Your task to perform on an android device: Open Google Maps Image 0: 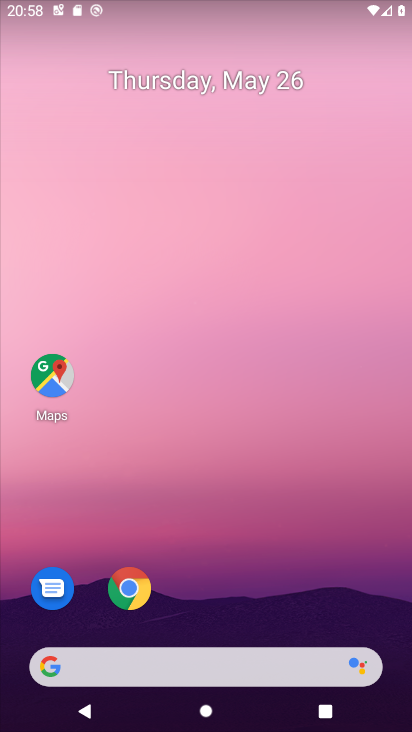
Step 0: drag from (218, 592) to (217, 6)
Your task to perform on an android device: Open Google Maps Image 1: 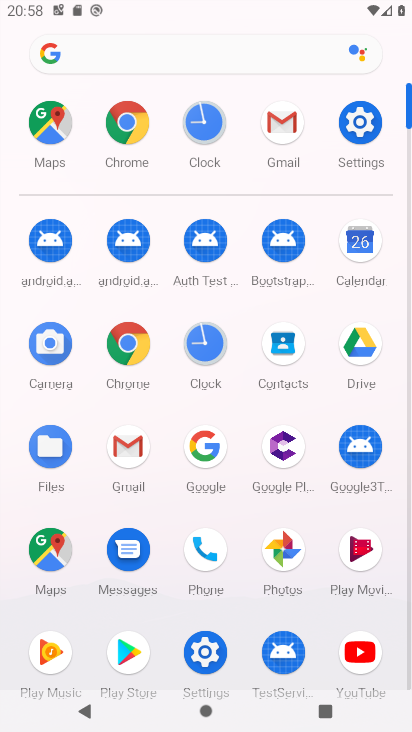
Step 1: click (65, 159)
Your task to perform on an android device: Open Google Maps Image 2: 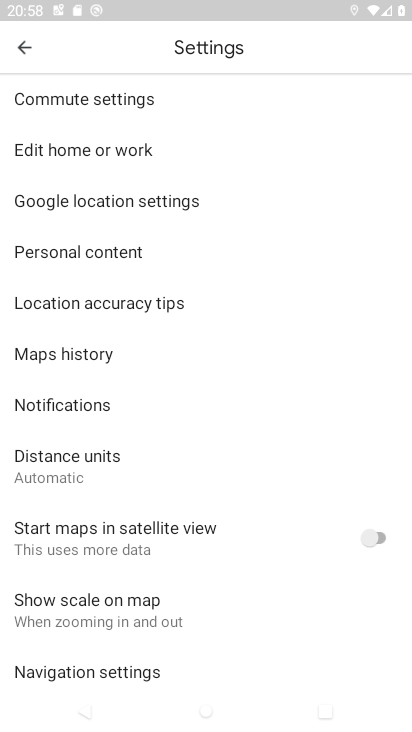
Step 2: click (30, 44)
Your task to perform on an android device: Open Google Maps Image 3: 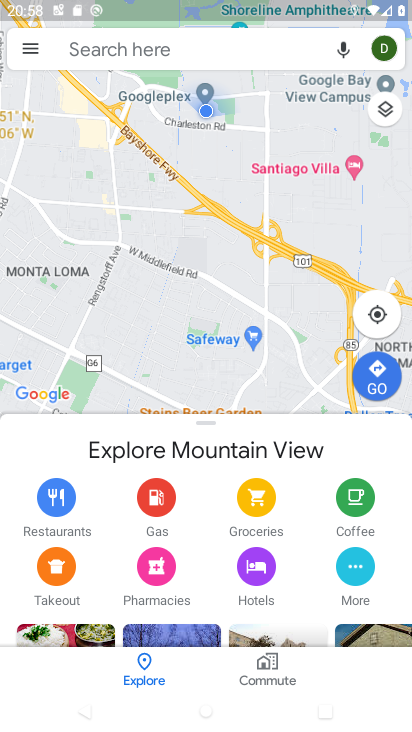
Step 3: click (30, 44)
Your task to perform on an android device: Open Google Maps Image 4: 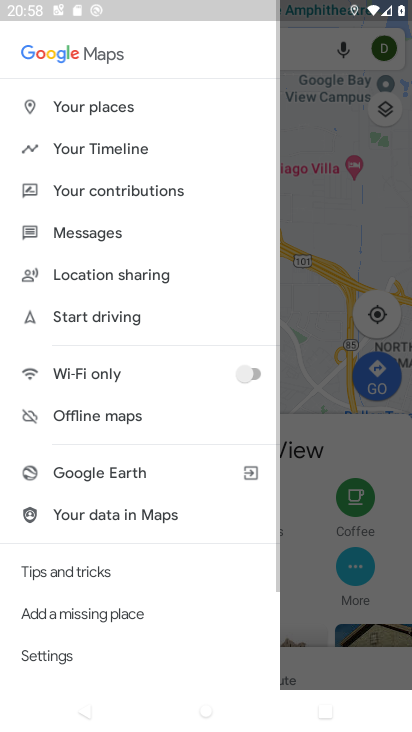
Step 4: click (319, 63)
Your task to perform on an android device: Open Google Maps Image 5: 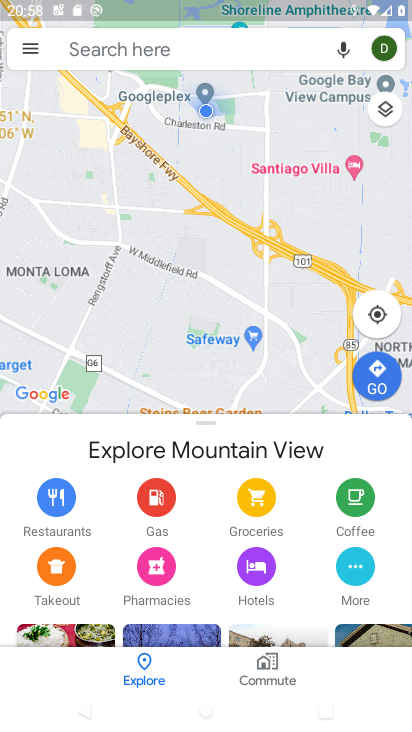
Step 5: task complete